Your task to perform on an android device: turn pop-ups off in chrome Image 0: 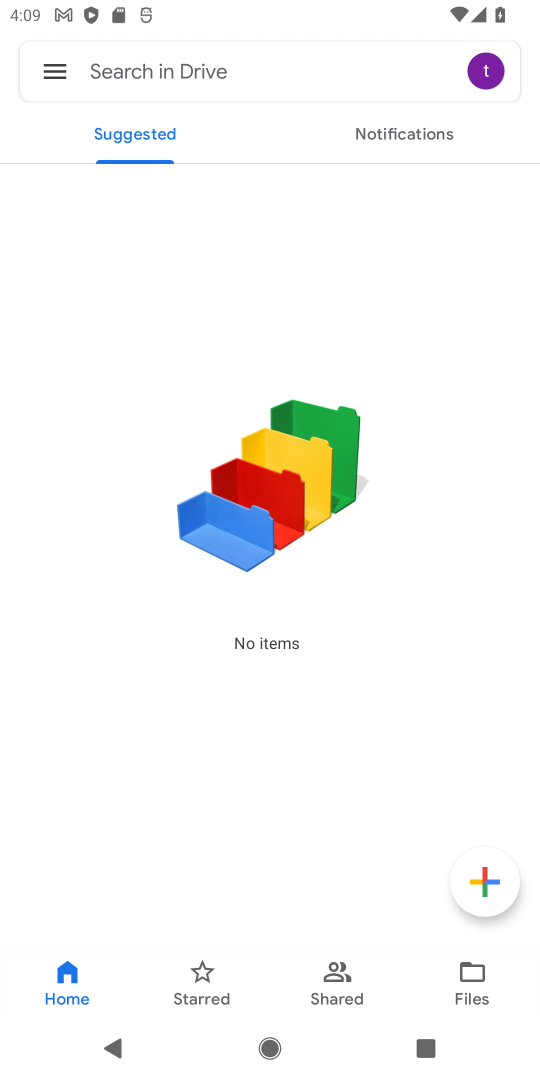
Step 0: press home button
Your task to perform on an android device: turn pop-ups off in chrome Image 1: 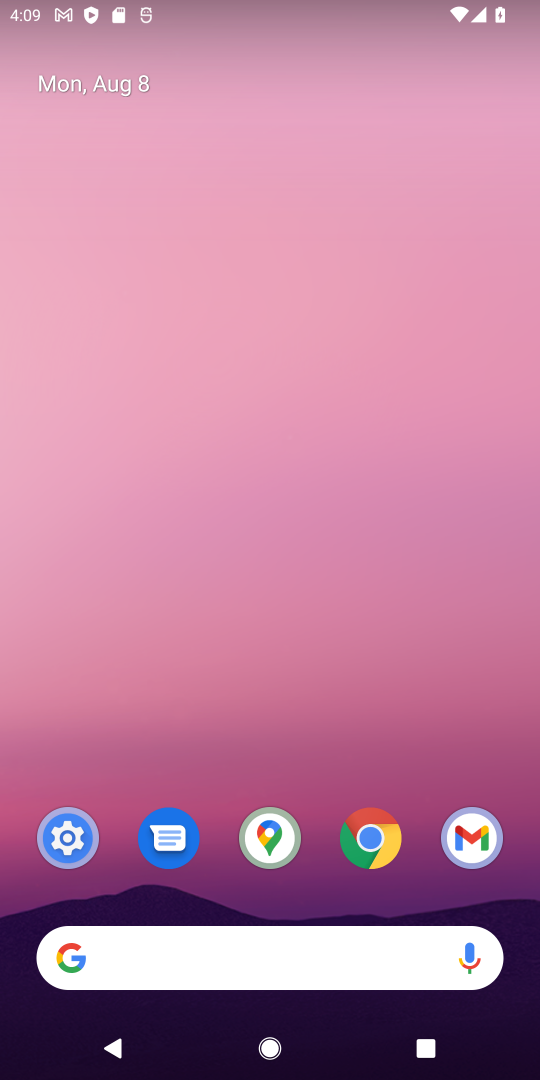
Step 1: click (370, 841)
Your task to perform on an android device: turn pop-ups off in chrome Image 2: 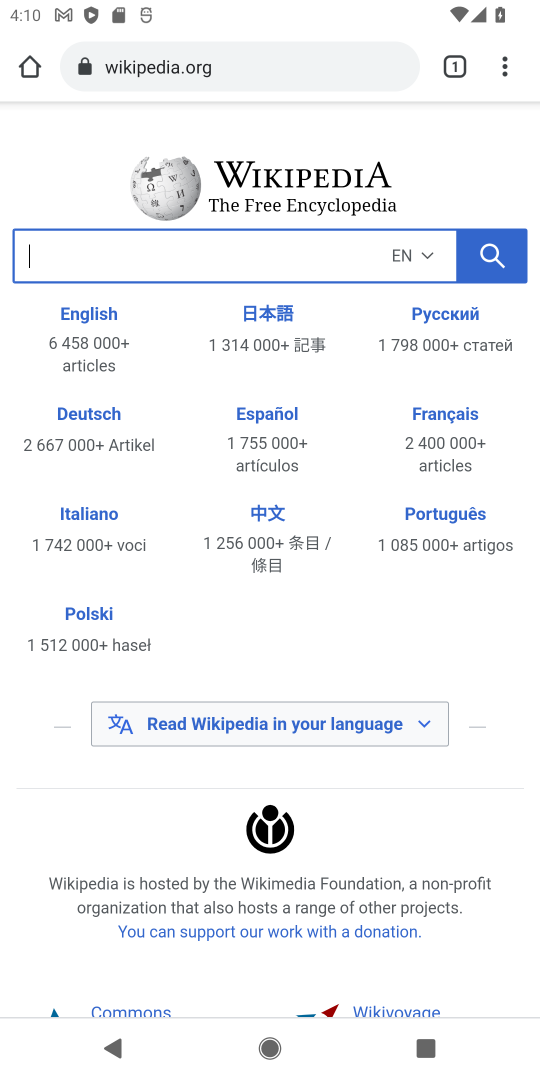
Step 2: click (506, 68)
Your task to perform on an android device: turn pop-ups off in chrome Image 3: 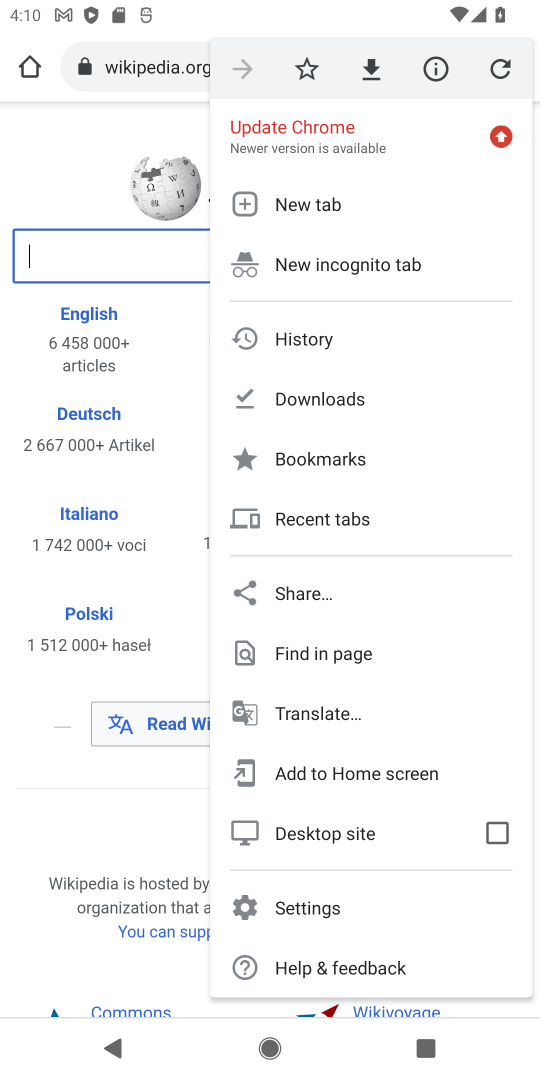
Step 3: click (296, 909)
Your task to perform on an android device: turn pop-ups off in chrome Image 4: 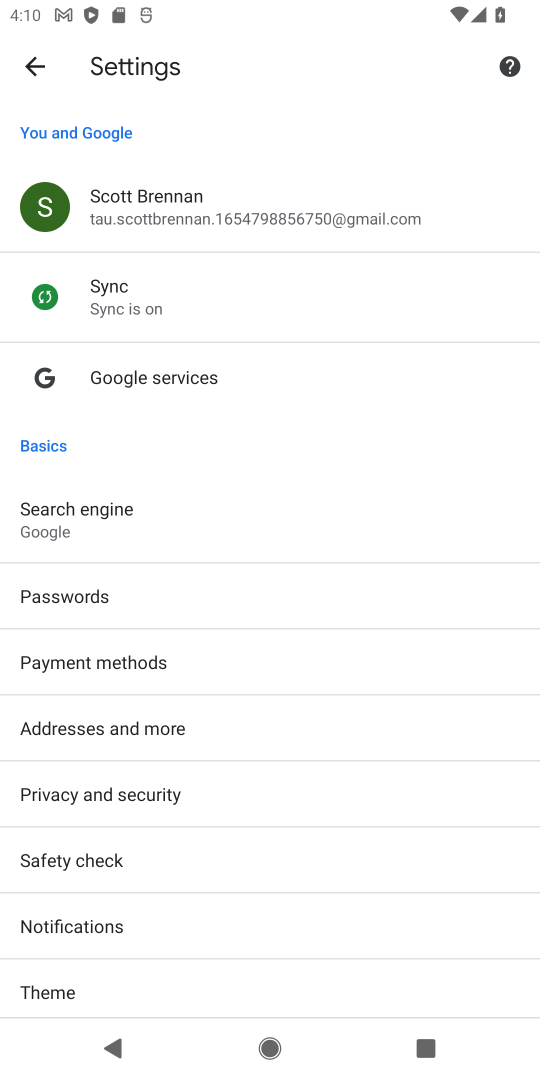
Step 4: drag from (145, 852) to (196, 727)
Your task to perform on an android device: turn pop-ups off in chrome Image 5: 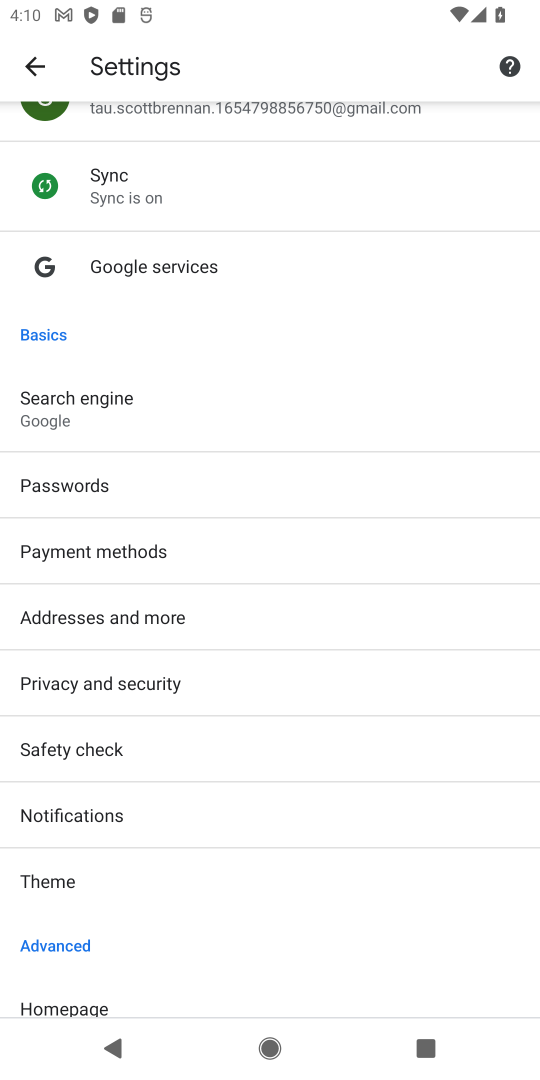
Step 5: drag from (172, 852) to (207, 741)
Your task to perform on an android device: turn pop-ups off in chrome Image 6: 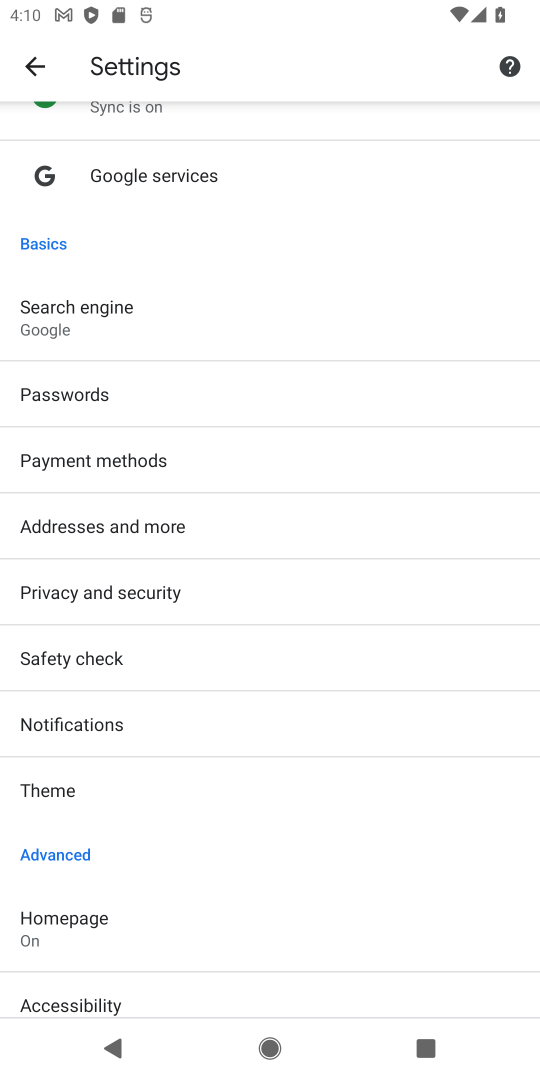
Step 6: drag from (164, 790) to (207, 653)
Your task to perform on an android device: turn pop-ups off in chrome Image 7: 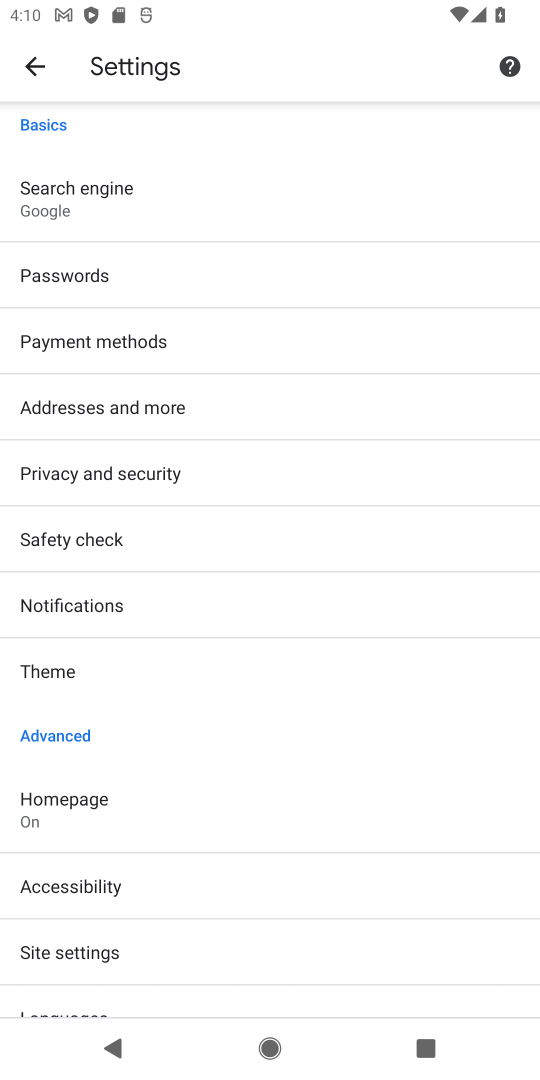
Step 7: drag from (161, 823) to (196, 706)
Your task to perform on an android device: turn pop-ups off in chrome Image 8: 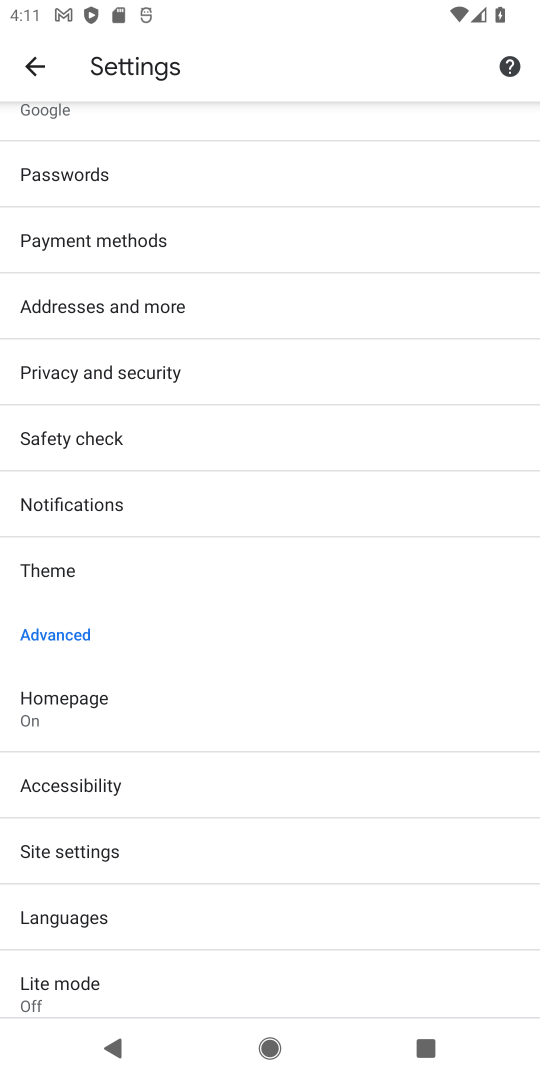
Step 8: click (97, 844)
Your task to perform on an android device: turn pop-ups off in chrome Image 9: 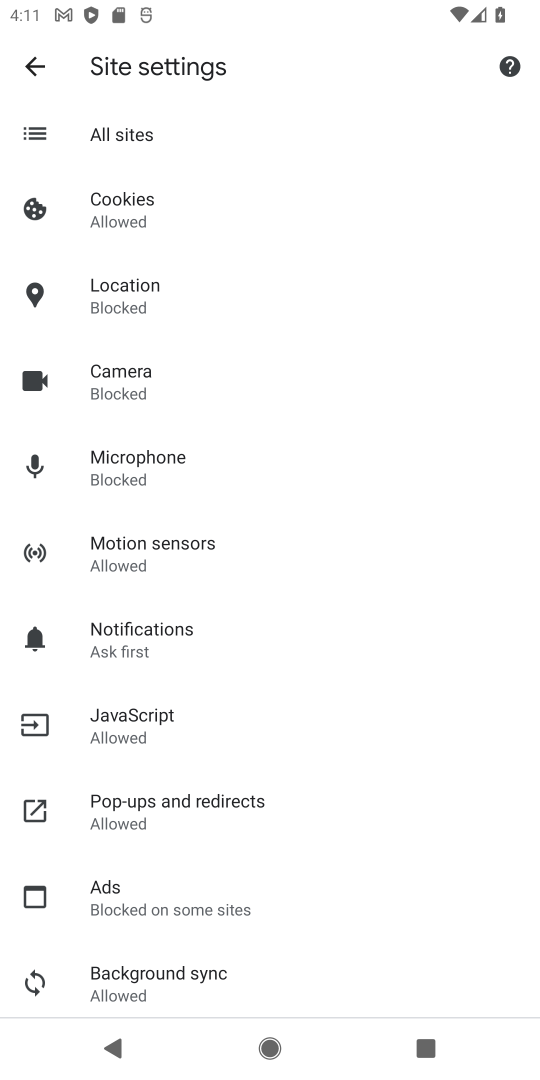
Step 9: click (136, 817)
Your task to perform on an android device: turn pop-ups off in chrome Image 10: 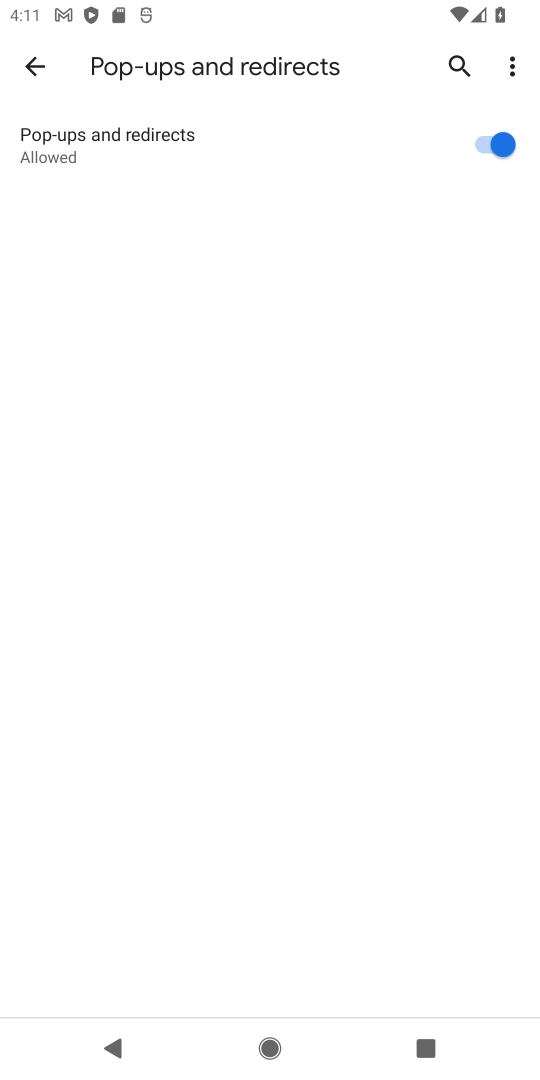
Step 10: click (490, 146)
Your task to perform on an android device: turn pop-ups off in chrome Image 11: 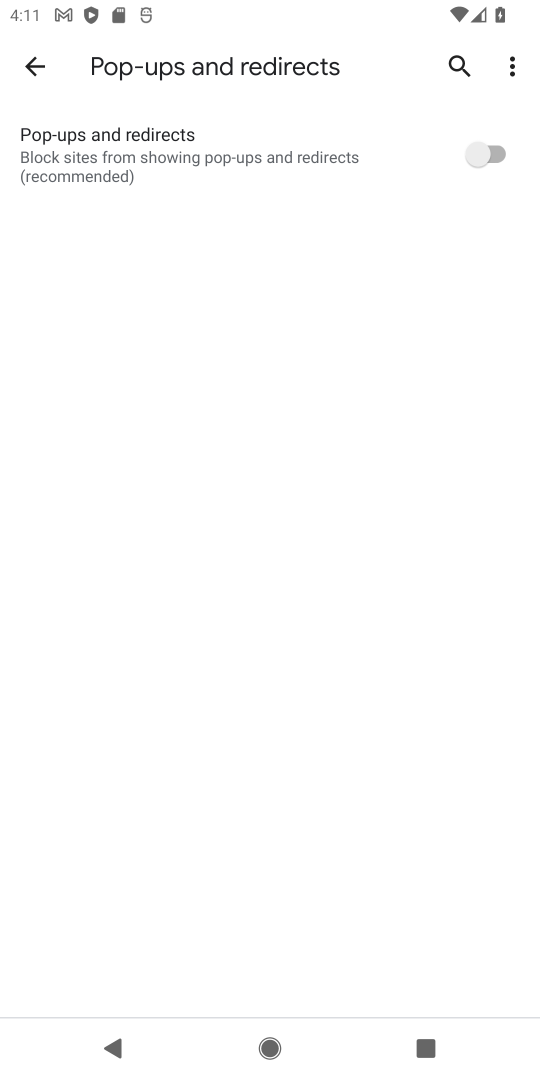
Step 11: task complete